Your task to perform on an android device: see creations saved in the google photos Image 0: 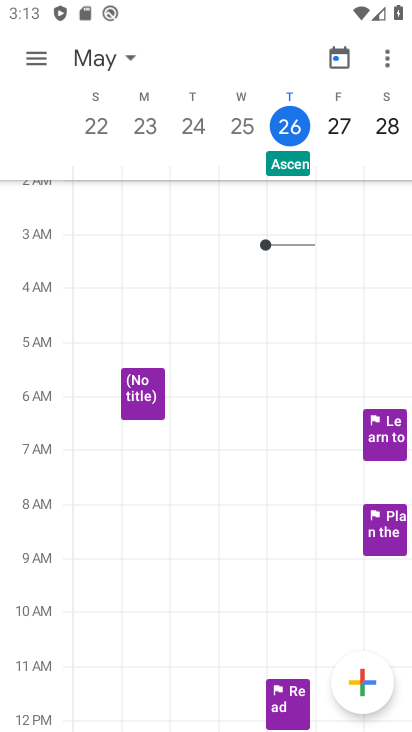
Step 0: press home button
Your task to perform on an android device: see creations saved in the google photos Image 1: 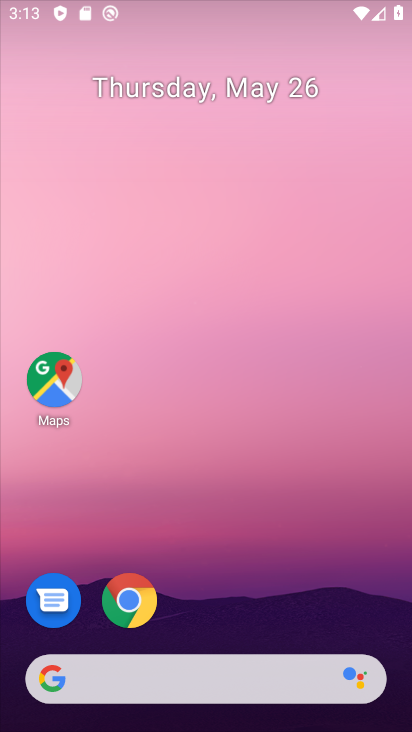
Step 1: drag from (257, 617) to (227, 195)
Your task to perform on an android device: see creations saved in the google photos Image 2: 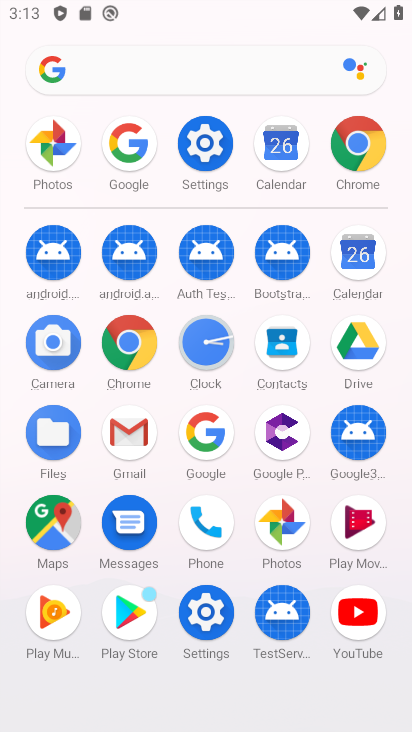
Step 2: click (49, 134)
Your task to perform on an android device: see creations saved in the google photos Image 3: 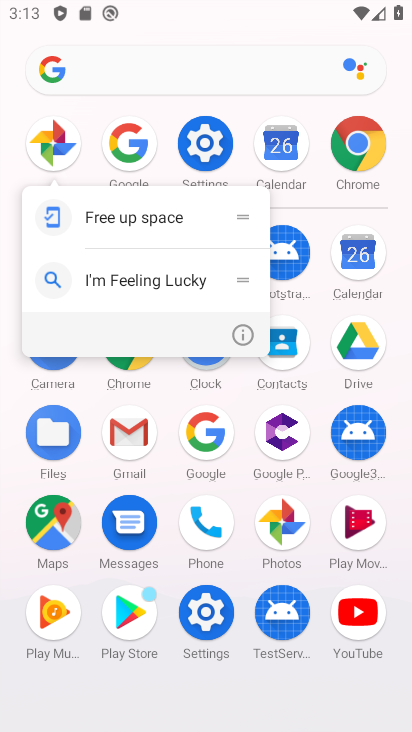
Step 3: click (49, 134)
Your task to perform on an android device: see creations saved in the google photos Image 4: 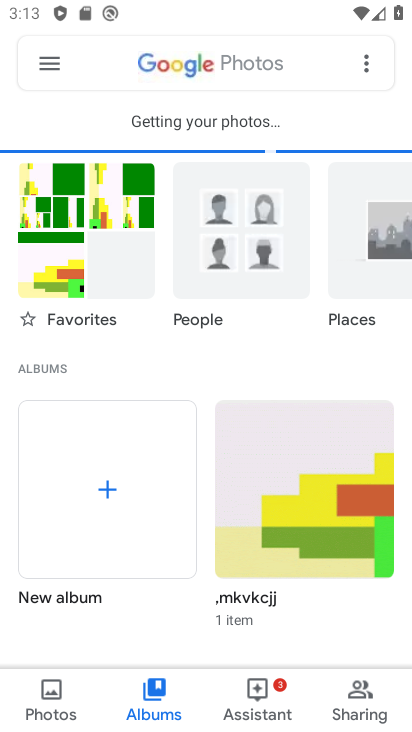
Step 4: click (190, 71)
Your task to perform on an android device: see creations saved in the google photos Image 5: 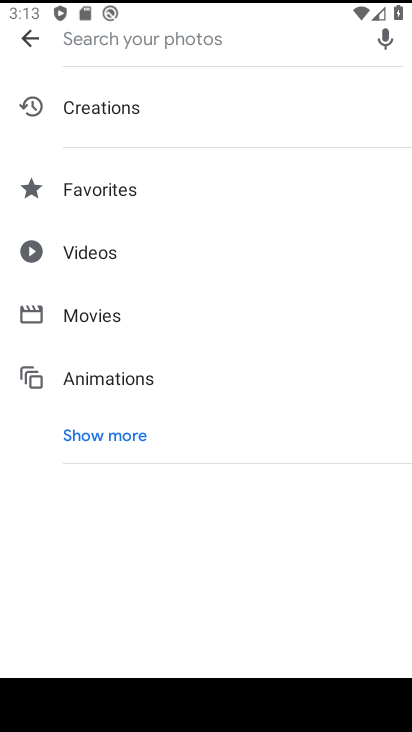
Step 5: click (128, 450)
Your task to perform on an android device: see creations saved in the google photos Image 6: 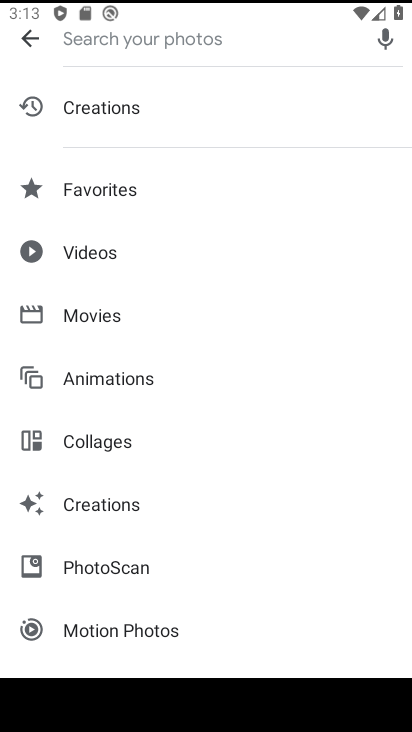
Step 6: click (135, 505)
Your task to perform on an android device: see creations saved in the google photos Image 7: 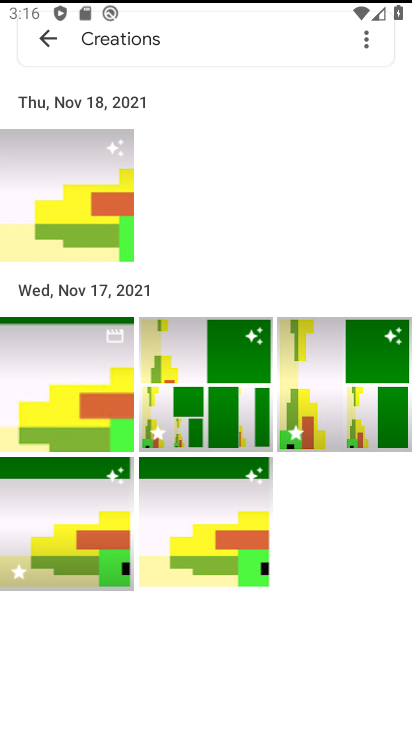
Step 7: task complete